Your task to perform on an android device: Open the map Image 0: 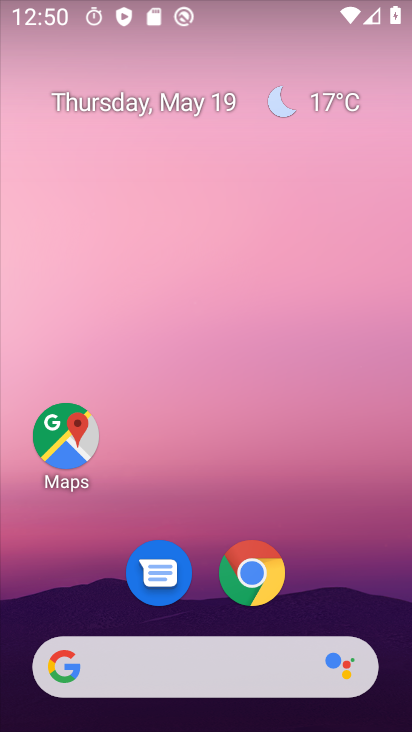
Step 0: click (63, 426)
Your task to perform on an android device: Open the map Image 1: 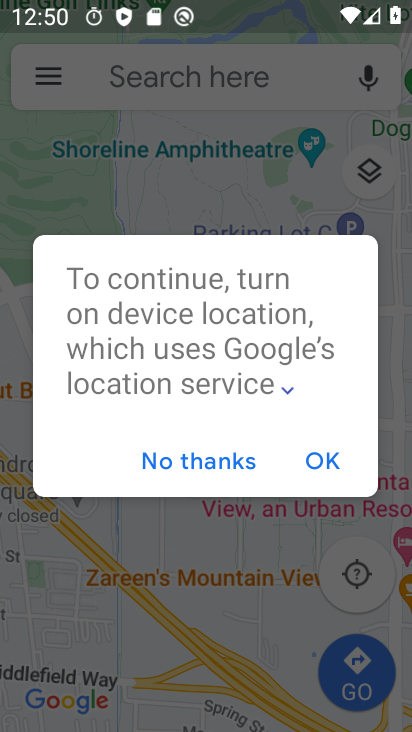
Step 1: task complete